Your task to perform on an android device: Search for sushi restaurants on Maps Image 0: 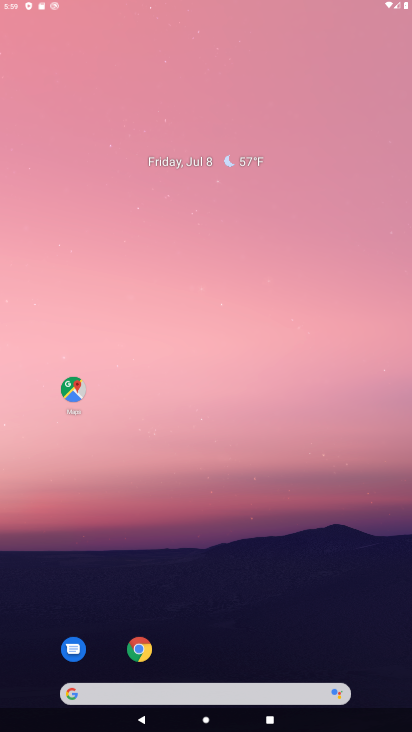
Step 0: drag from (274, 458) to (332, 34)
Your task to perform on an android device: Search for sushi restaurants on Maps Image 1: 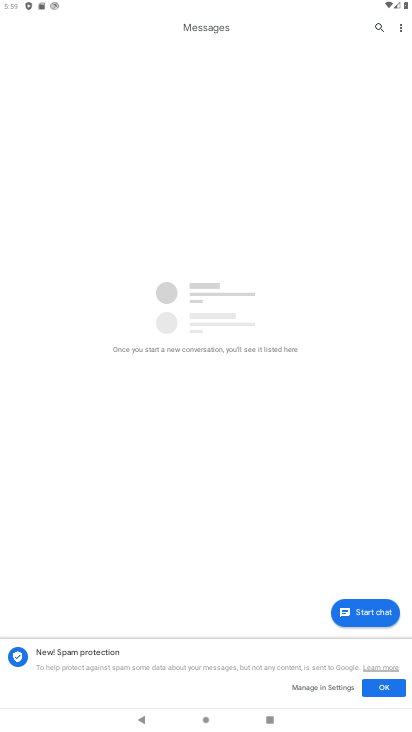
Step 1: press home button
Your task to perform on an android device: Search for sushi restaurants on Maps Image 2: 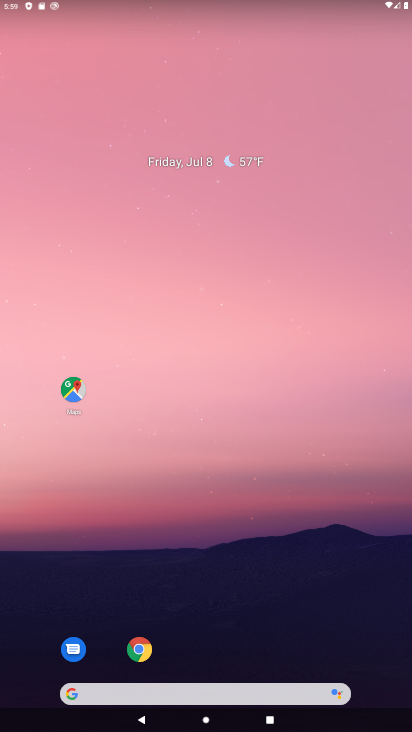
Step 2: drag from (242, 686) to (163, 29)
Your task to perform on an android device: Search for sushi restaurants on Maps Image 3: 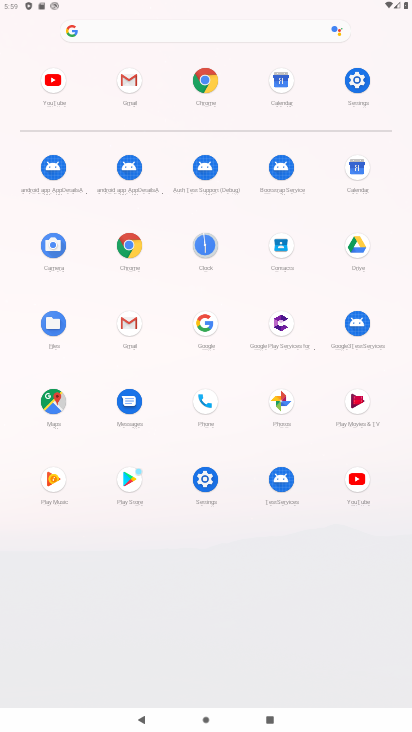
Step 3: click (48, 410)
Your task to perform on an android device: Search for sushi restaurants on Maps Image 4: 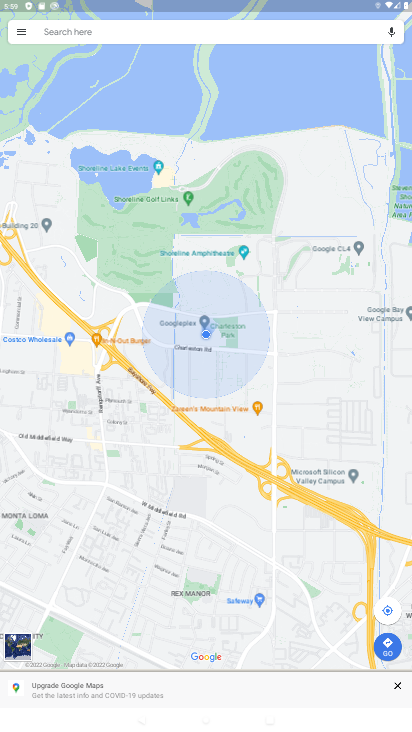
Step 4: click (192, 38)
Your task to perform on an android device: Search for sushi restaurants on Maps Image 5: 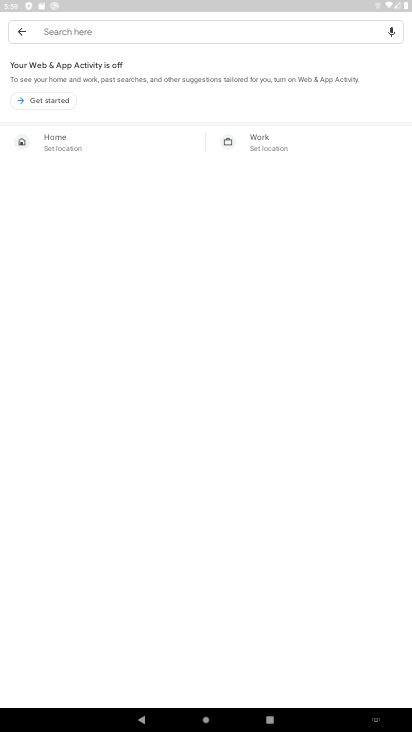
Step 5: type "sushi restaurant"
Your task to perform on an android device: Search for sushi restaurants on Maps Image 6: 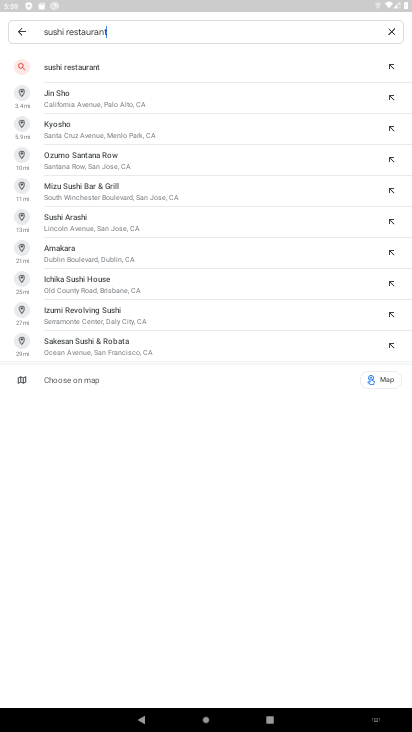
Step 6: click (277, 69)
Your task to perform on an android device: Search for sushi restaurants on Maps Image 7: 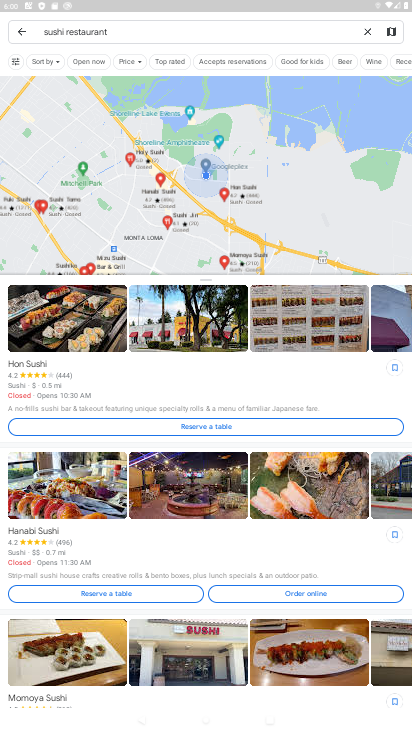
Step 7: task complete